Your task to perform on an android device: Go to Wikipedia Image 0: 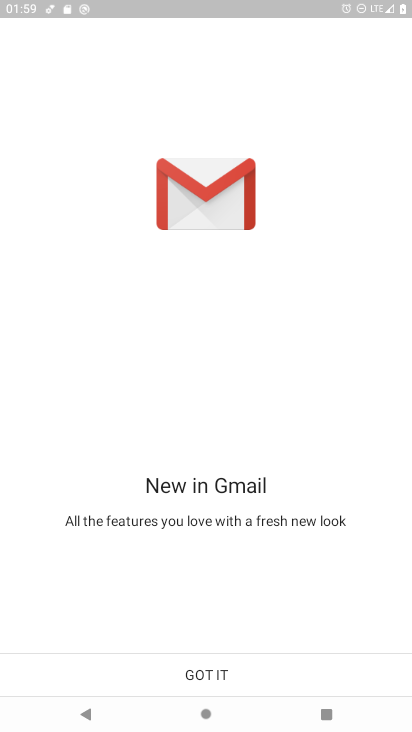
Step 0: press home button
Your task to perform on an android device: Go to Wikipedia Image 1: 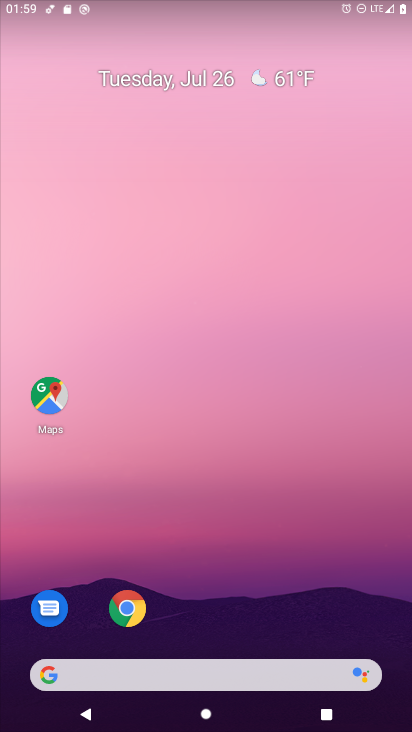
Step 1: click (132, 605)
Your task to perform on an android device: Go to Wikipedia Image 2: 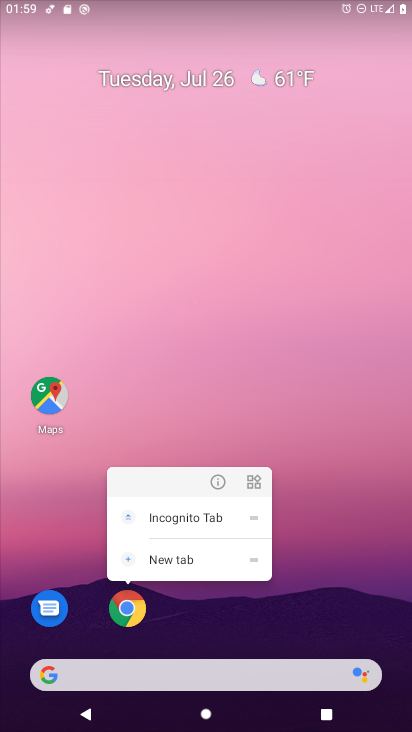
Step 2: click (132, 601)
Your task to perform on an android device: Go to Wikipedia Image 3: 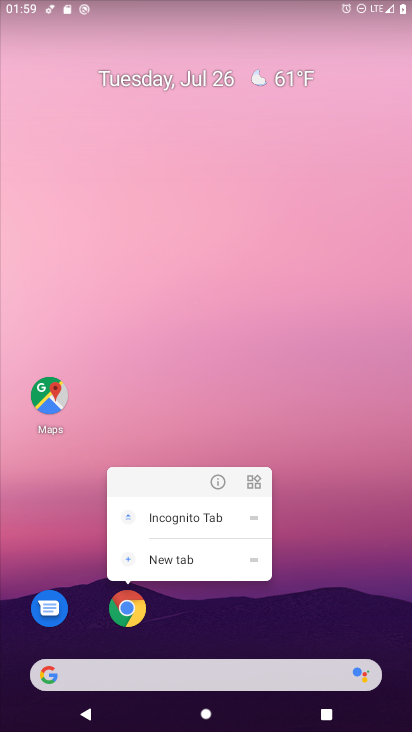
Step 3: click (130, 602)
Your task to perform on an android device: Go to Wikipedia Image 4: 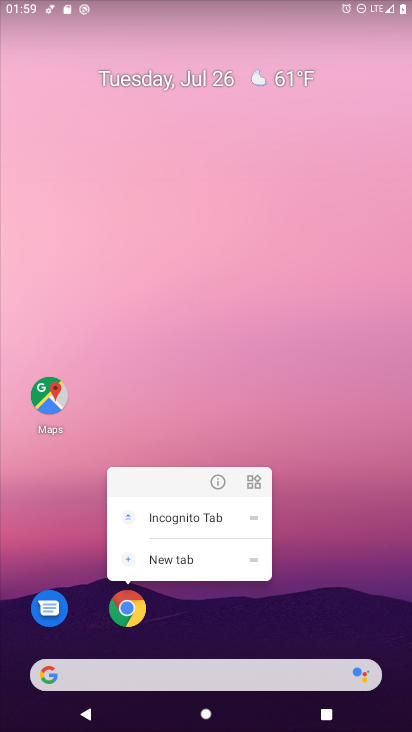
Step 4: click (124, 604)
Your task to perform on an android device: Go to Wikipedia Image 5: 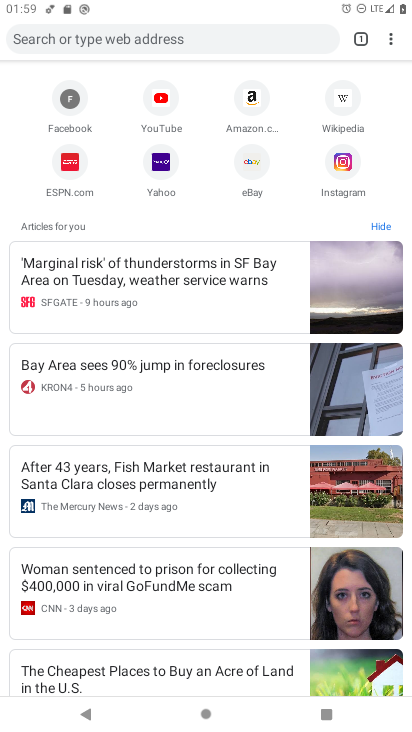
Step 5: click (340, 100)
Your task to perform on an android device: Go to Wikipedia Image 6: 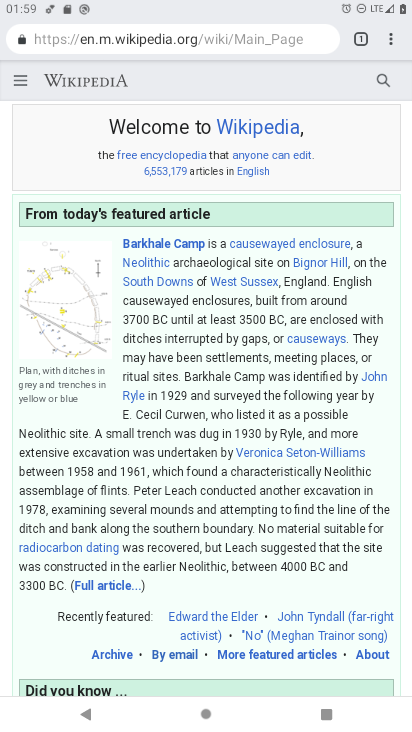
Step 6: task complete